Your task to perform on an android device: What's the weather like in Mumbai? Image 0: 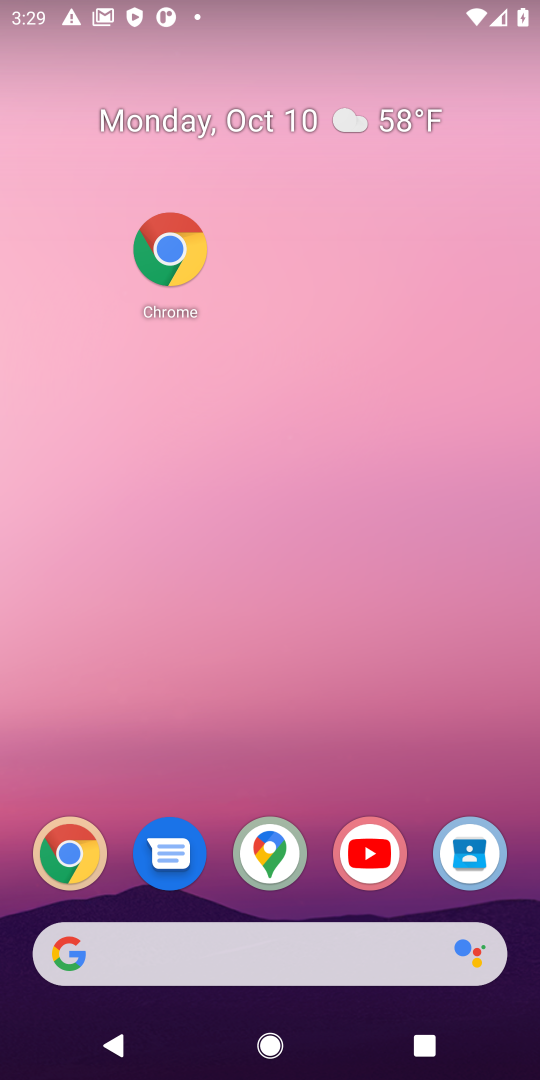
Step 0: click (73, 849)
Your task to perform on an android device: What's the weather like in Mumbai? Image 1: 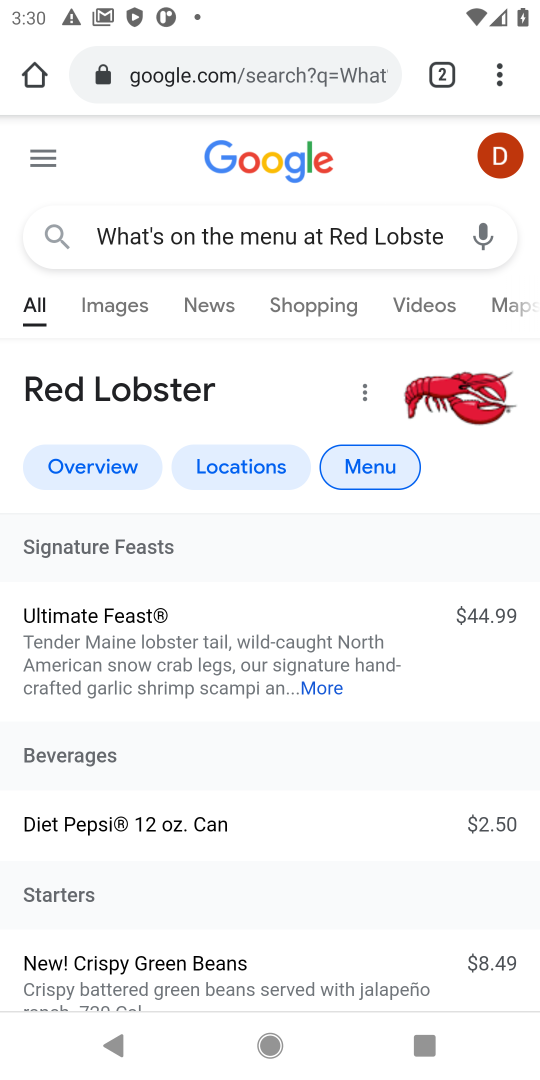
Step 1: click (220, 71)
Your task to perform on an android device: What's the weather like in Mumbai? Image 2: 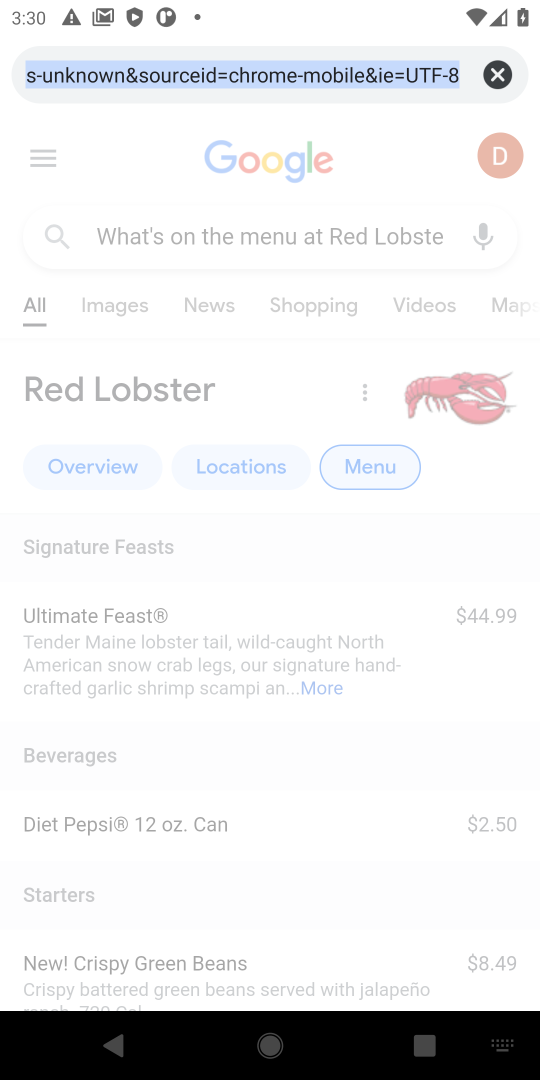
Step 2: type "What's the weather like in Mumbai?"
Your task to perform on an android device: What's the weather like in Mumbai? Image 3: 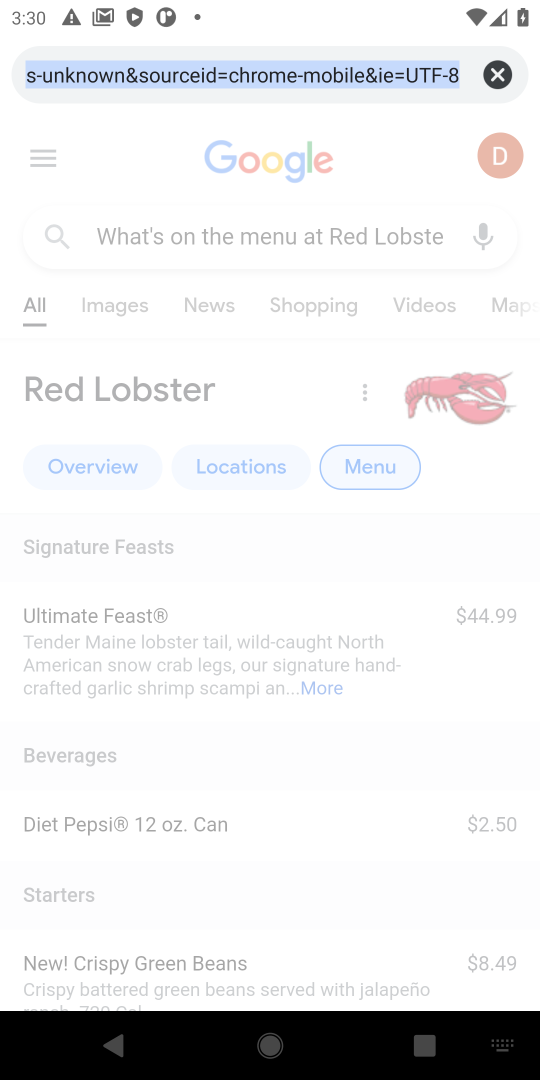
Step 3: click (407, 74)
Your task to perform on an android device: What's the weather like in Mumbai? Image 4: 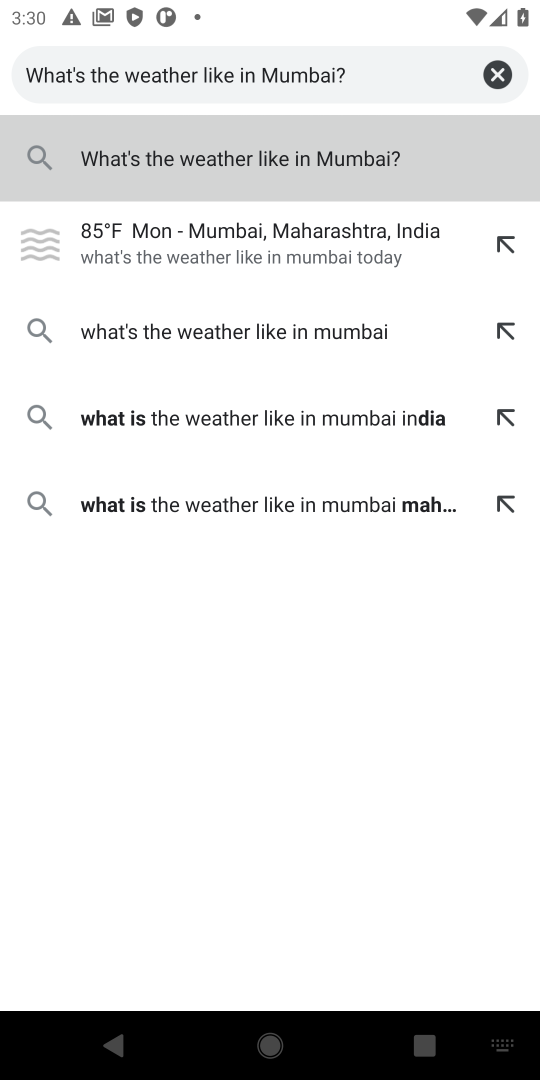
Step 4: click (375, 162)
Your task to perform on an android device: What's the weather like in Mumbai? Image 5: 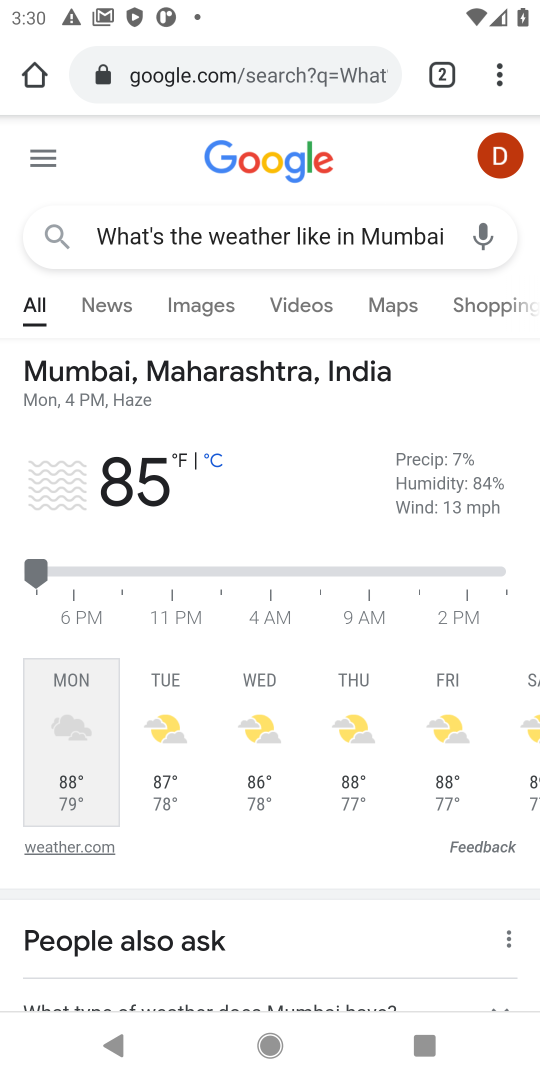
Step 5: task complete